Your task to perform on an android device: open the mobile data screen to see how much data has been used Image 0: 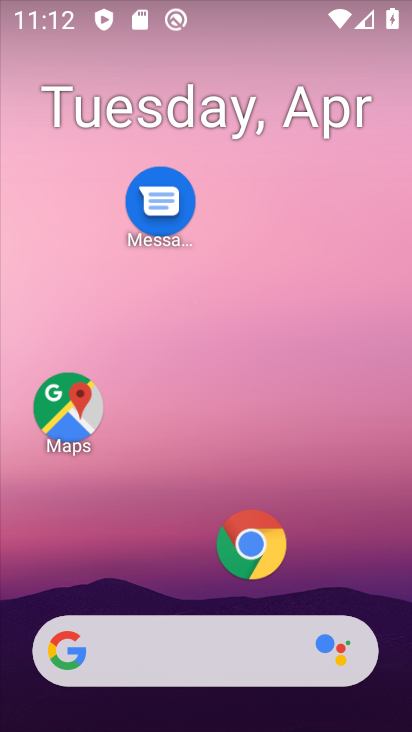
Step 0: drag from (171, 578) to (219, 12)
Your task to perform on an android device: open the mobile data screen to see how much data has been used Image 1: 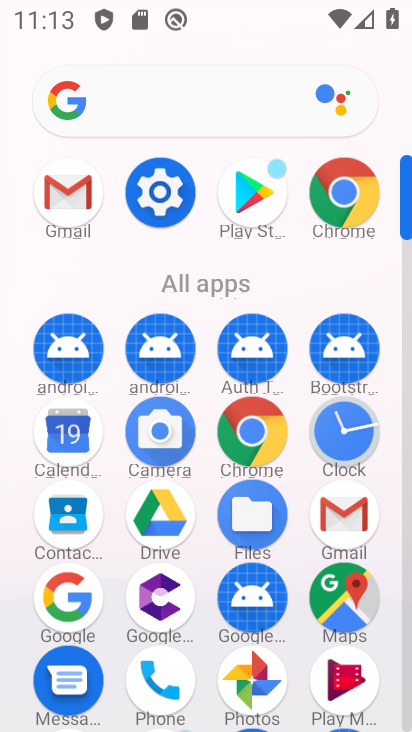
Step 1: click (168, 227)
Your task to perform on an android device: open the mobile data screen to see how much data has been used Image 2: 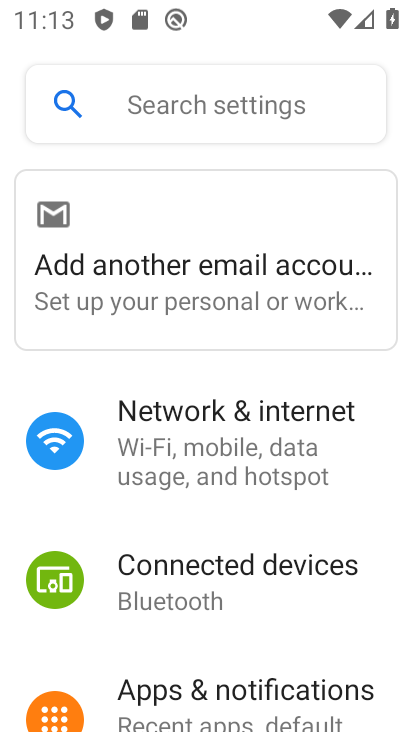
Step 2: click (207, 491)
Your task to perform on an android device: open the mobile data screen to see how much data has been used Image 3: 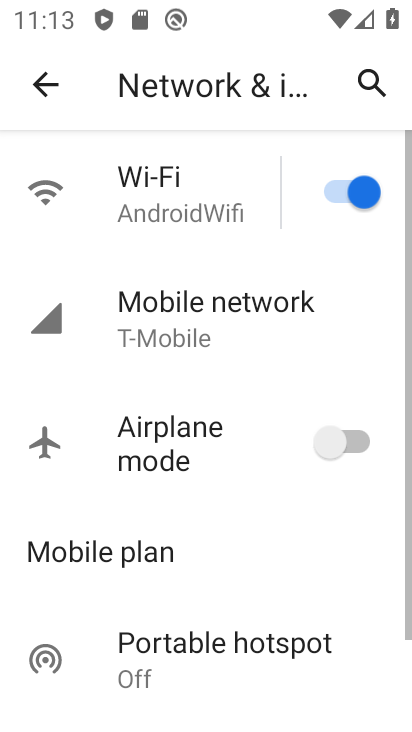
Step 3: click (186, 339)
Your task to perform on an android device: open the mobile data screen to see how much data has been used Image 4: 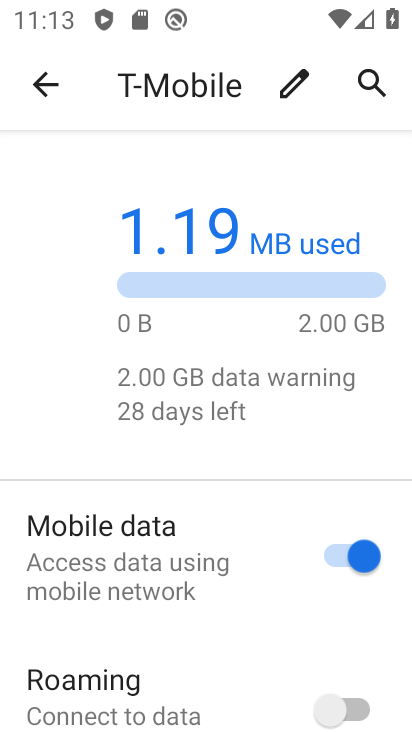
Step 4: drag from (163, 542) to (214, 188)
Your task to perform on an android device: open the mobile data screen to see how much data has been used Image 5: 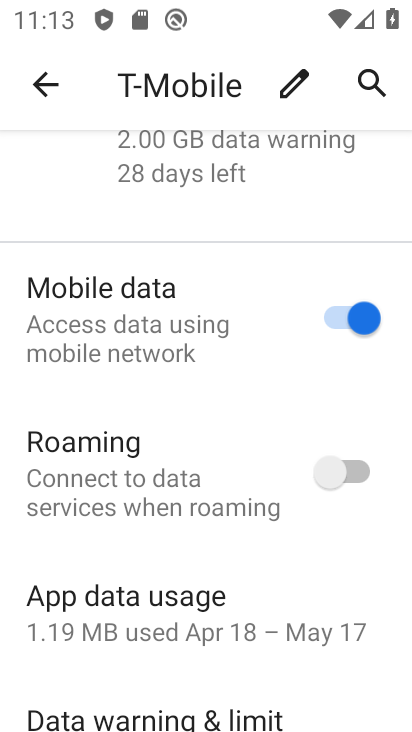
Step 5: drag from (142, 598) to (183, 348)
Your task to perform on an android device: open the mobile data screen to see how much data has been used Image 6: 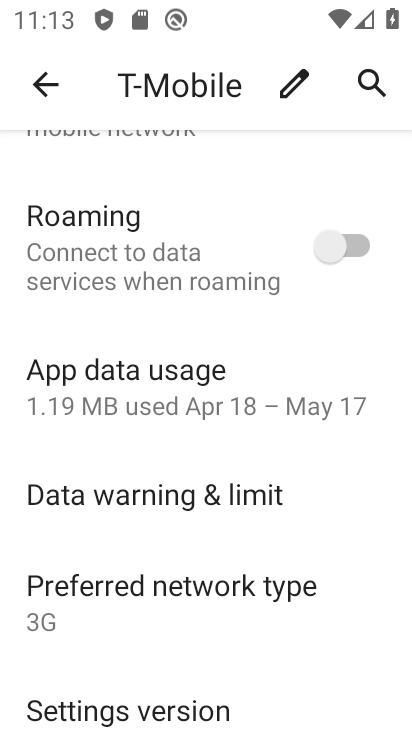
Step 6: click (170, 403)
Your task to perform on an android device: open the mobile data screen to see how much data has been used Image 7: 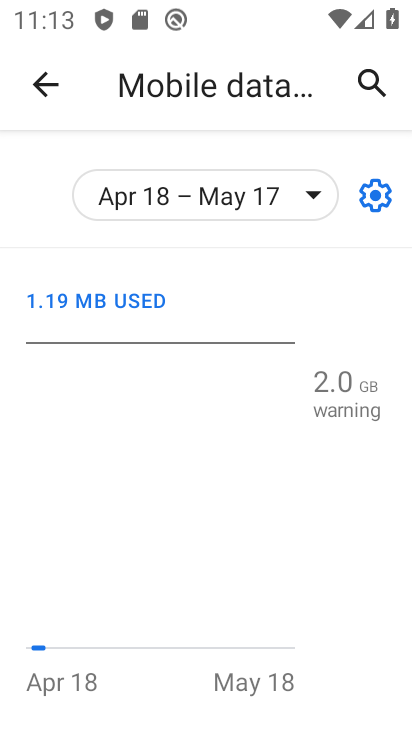
Step 7: task complete